Your task to perform on an android device: set the stopwatch Image 0: 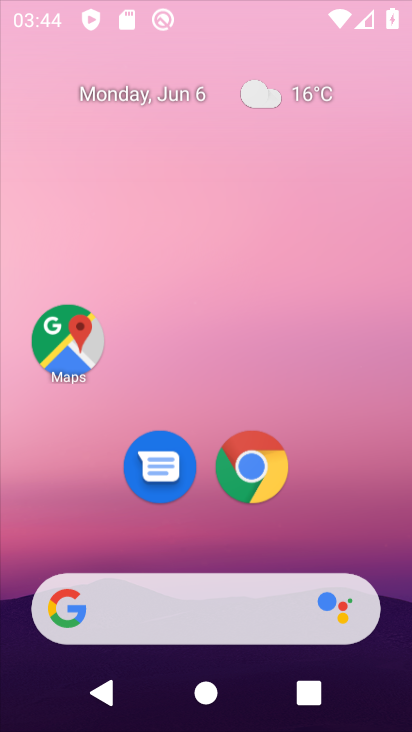
Step 0: press home button
Your task to perform on an android device: set the stopwatch Image 1: 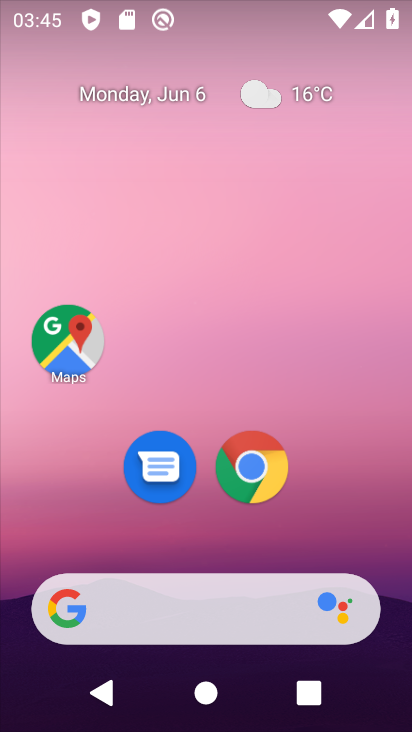
Step 1: drag from (214, 532) to (271, 100)
Your task to perform on an android device: set the stopwatch Image 2: 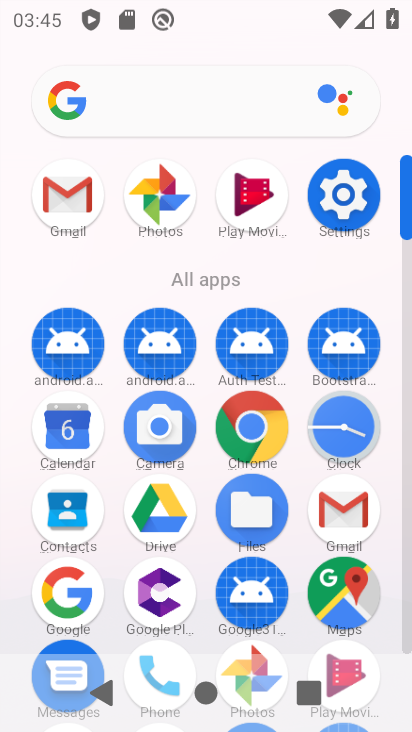
Step 2: click (348, 416)
Your task to perform on an android device: set the stopwatch Image 3: 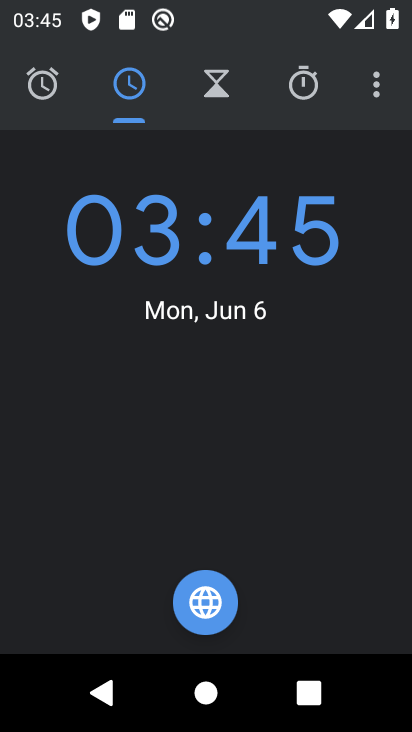
Step 3: click (301, 79)
Your task to perform on an android device: set the stopwatch Image 4: 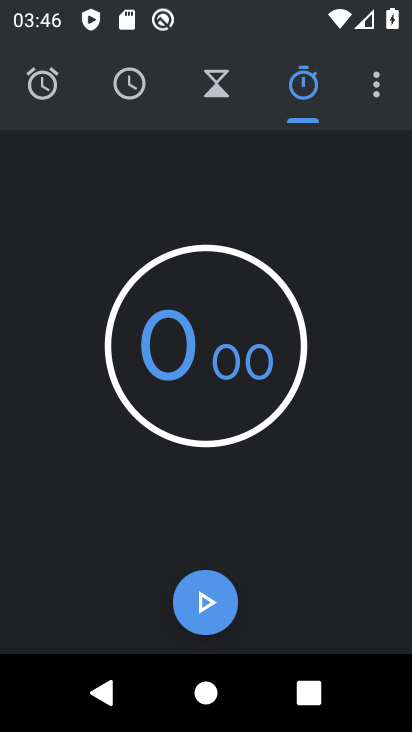
Step 4: click (204, 598)
Your task to perform on an android device: set the stopwatch Image 5: 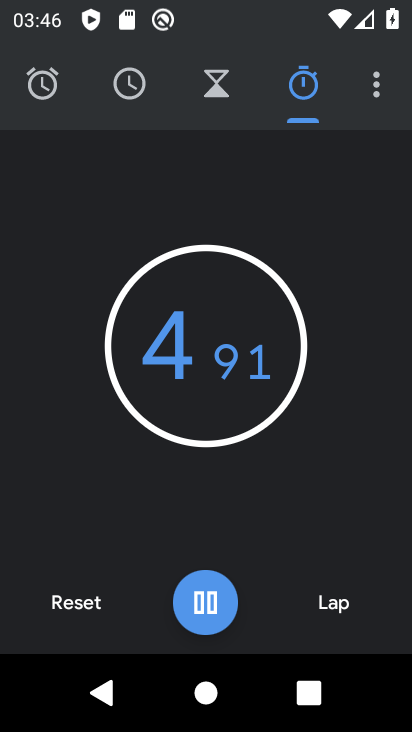
Step 5: task complete